Your task to perform on an android device: turn vacation reply on in the gmail app Image 0: 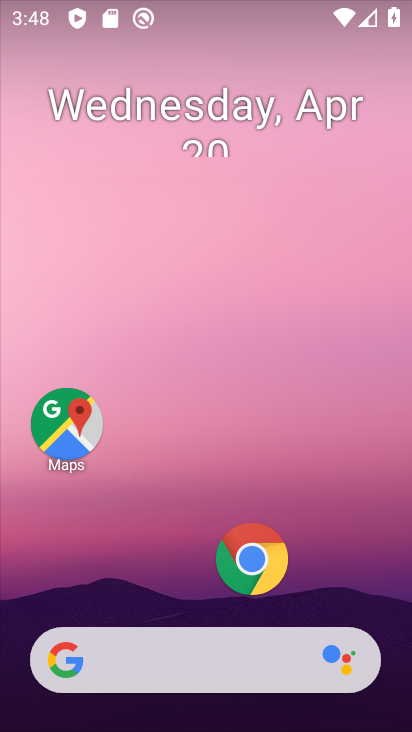
Step 0: drag from (176, 602) to (214, 105)
Your task to perform on an android device: turn vacation reply on in the gmail app Image 1: 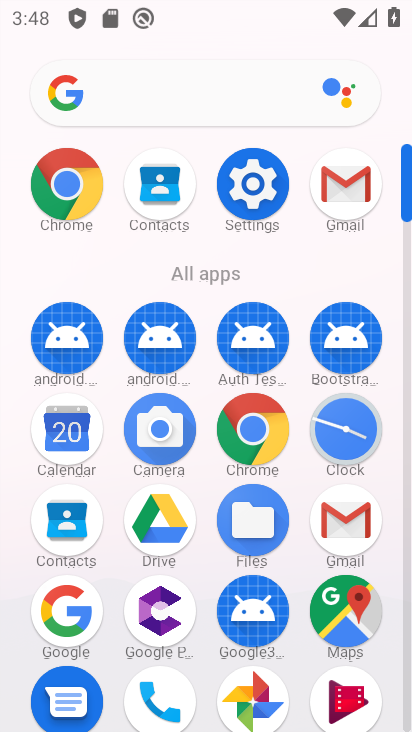
Step 1: click (350, 533)
Your task to perform on an android device: turn vacation reply on in the gmail app Image 2: 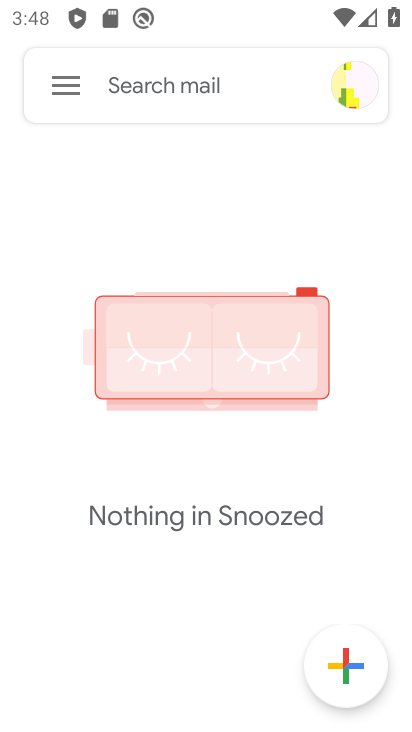
Step 2: click (65, 91)
Your task to perform on an android device: turn vacation reply on in the gmail app Image 3: 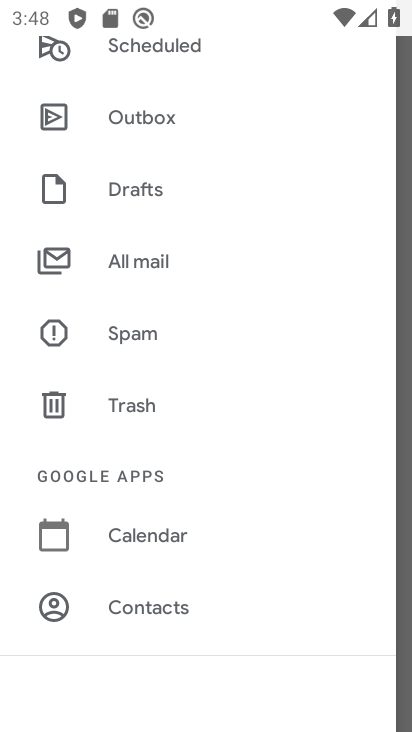
Step 3: drag from (141, 543) to (264, 196)
Your task to perform on an android device: turn vacation reply on in the gmail app Image 4: 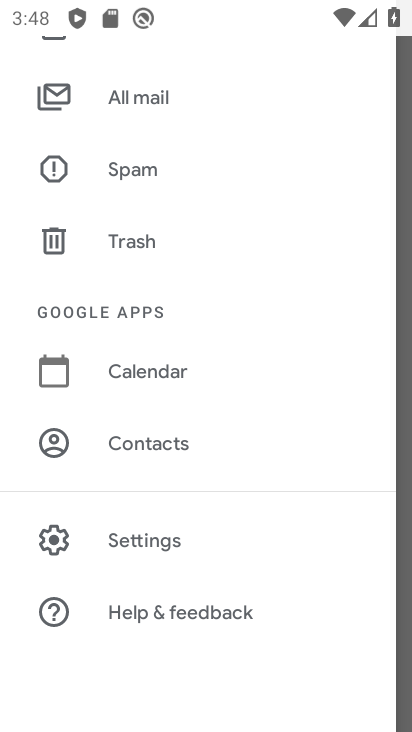
Step 4: click (141, 531)
Your task to perform on an android device: turn vacation reply on in the gmail app Image 5: 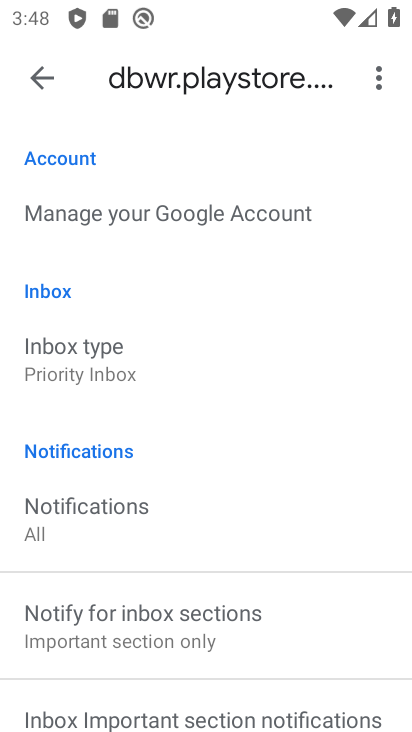
Step 5: drag from (154, 586) to (214, 269)
Your task to perform on an android device: turn vacation reply on in the gmail app Image 6: 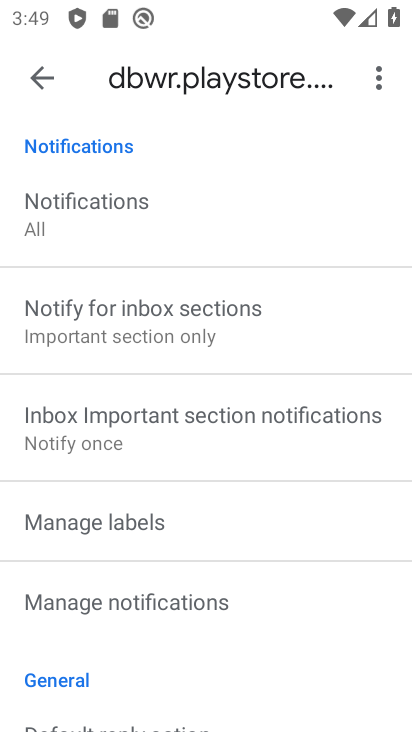
Step 6: drag from (212, 662) to (313, 340)
Your task to perform on an android device: turn vacation reply on in the gmail app Image 7: 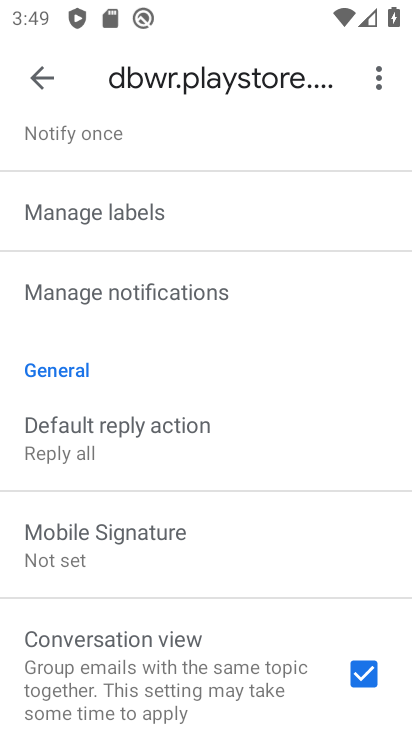
Step 7: drag from (216, 636) to (317, 198)
Your task to perform on an android device: turn vacation reply on in the gmail app Image 8: 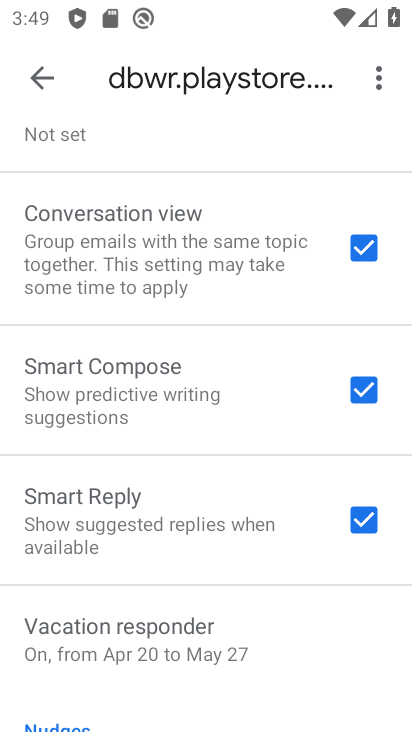
Step 8: click (137, 621)
Your task to perform on an android device: turn vacation reply on in the gmail app Image 9: 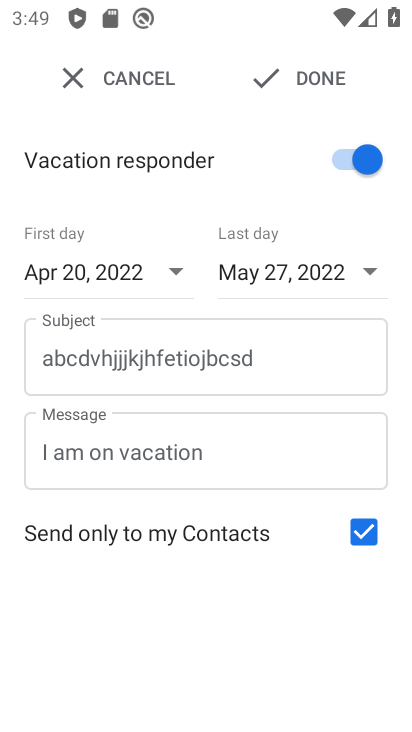
Step 9: task complete